Your task to perform on an android device: toggle notifications settings in the gmail app Image 0: 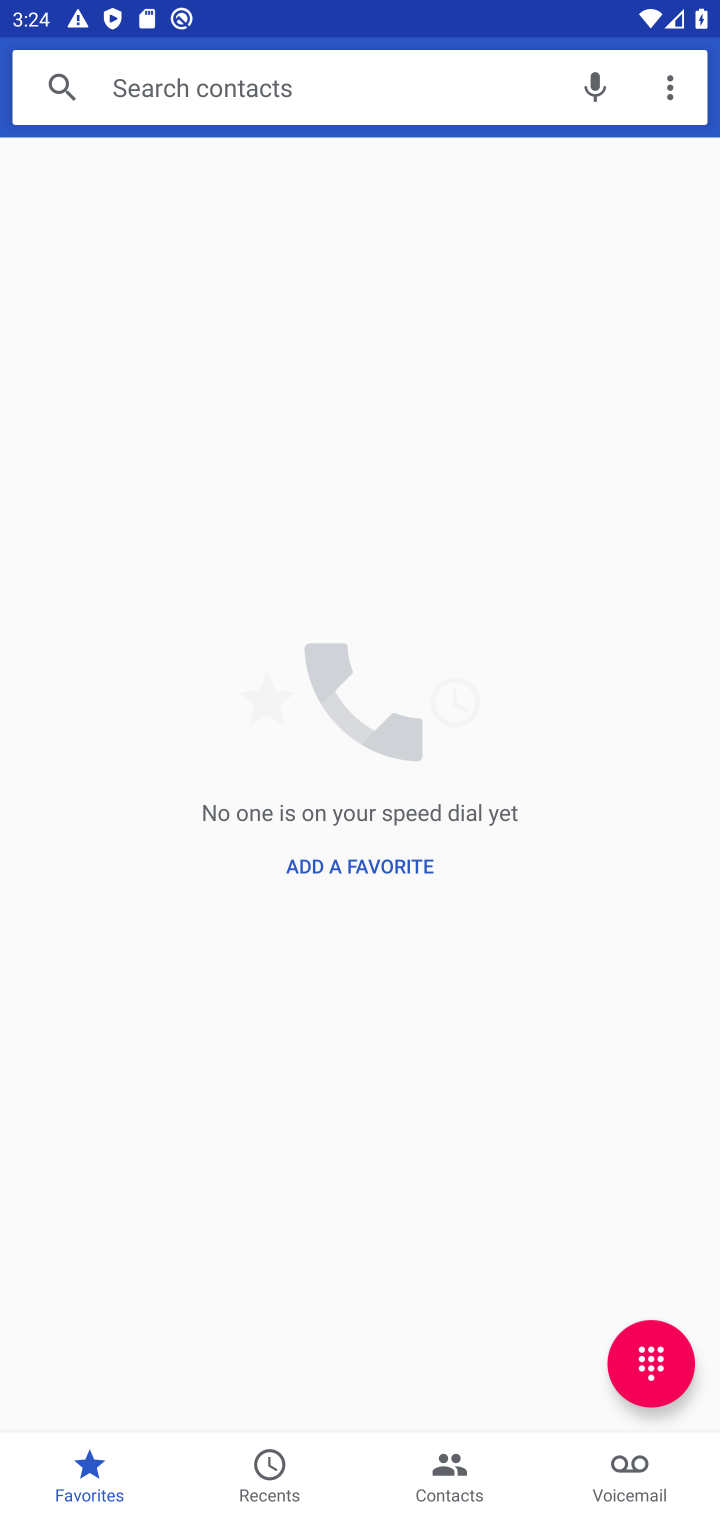
Step 0: task complete